Your task to perform on an android device: Open settings on Google Maps Image 0: 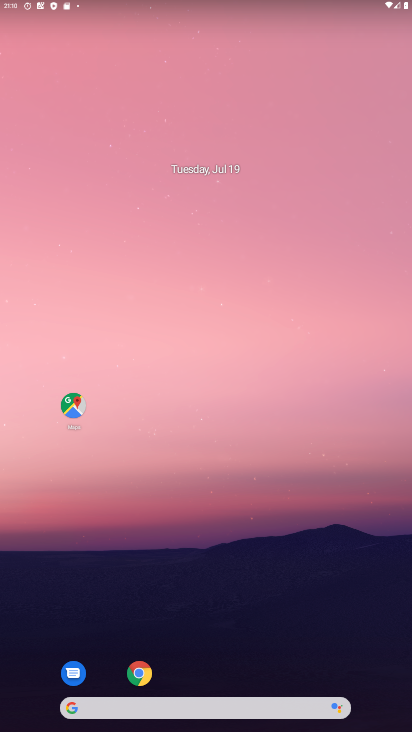
Step 0: click (71, 400)
Your task to perform on an android device: Open settings on Google Maps Image 1: 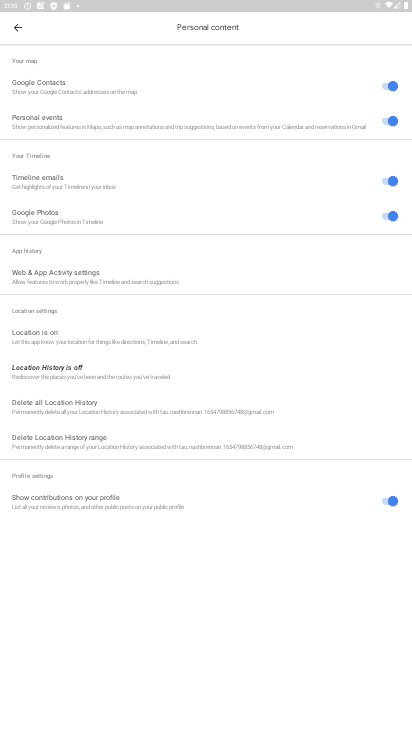
Step 1: click (16, 26)
Your task to perform on an android device: Open settings on Google Maps Image 2: 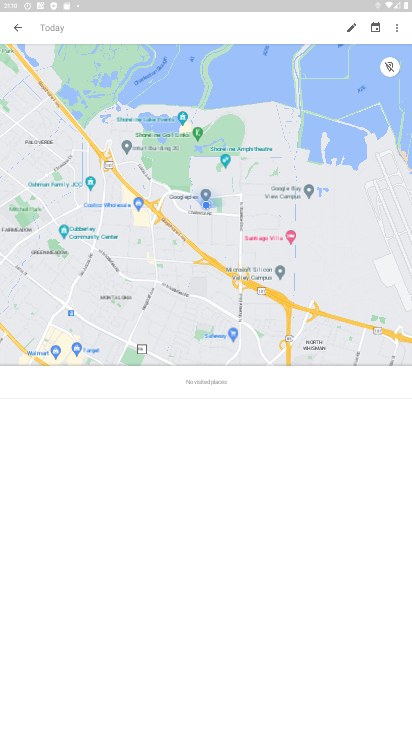
Step 2: click (16, 26)
Your task to perform on an android device: Open settings on Google Maps Image 3: 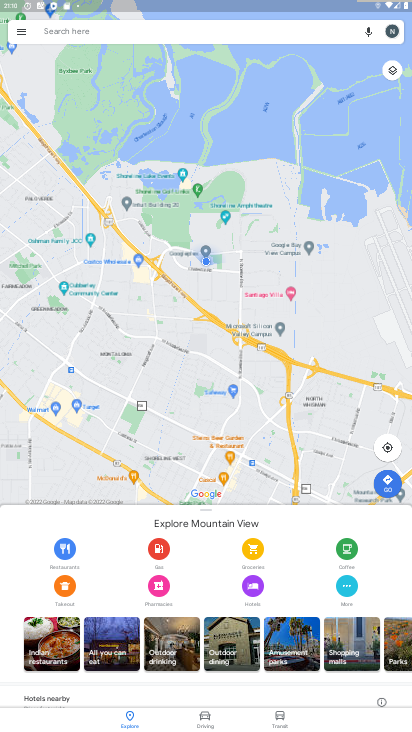
Step 3: click (16, 33)
Your task to perform on an android device: Open settings on Google Maps Image 4: 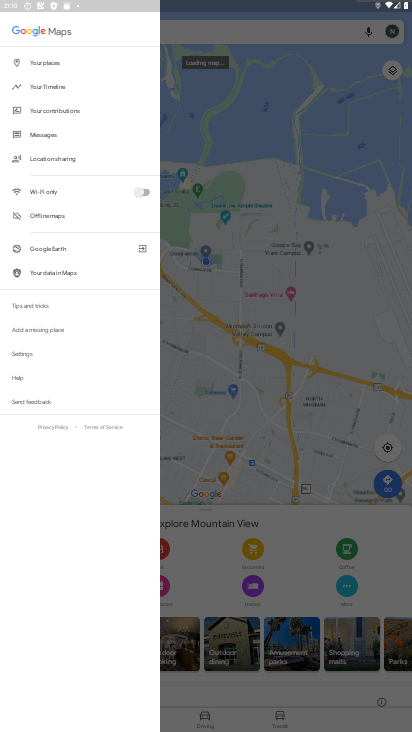
Step 4: click (28, 352)
Your task to perform on an android device: Open settings on Google Maps Image 5: 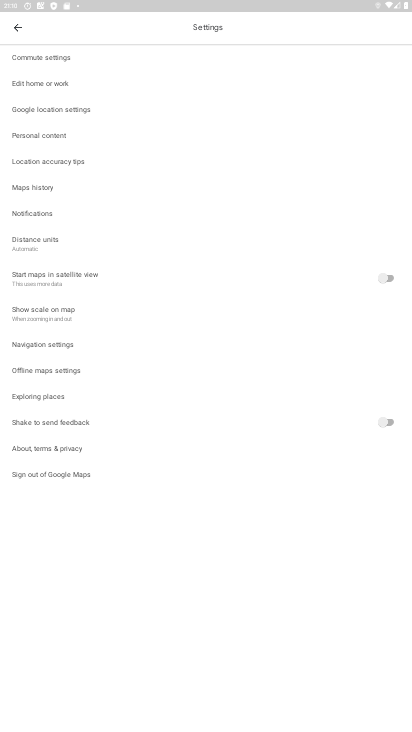
Step 5: task complete